Your task to perform on an android device: star an email in the gmail app Image 0: 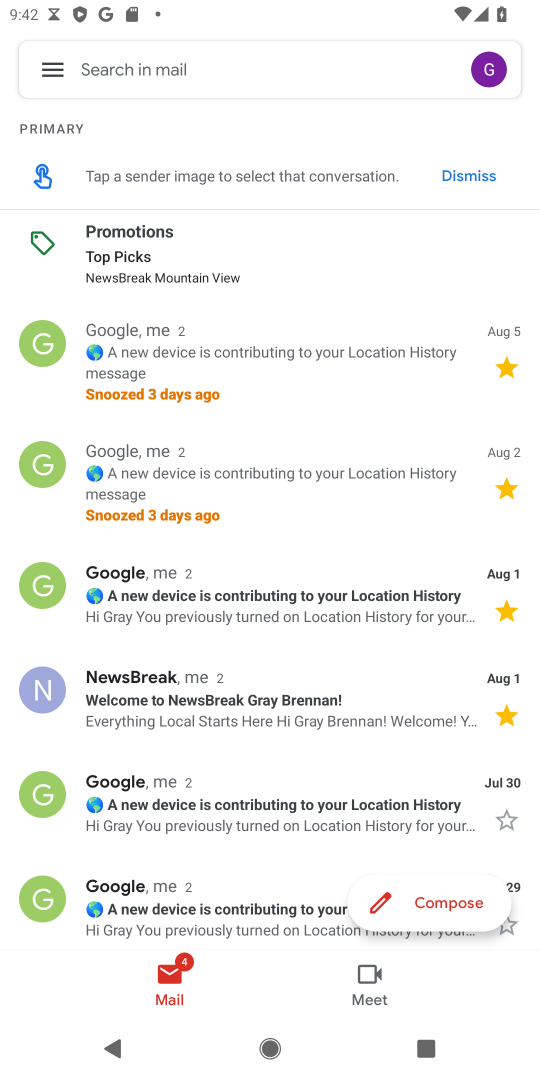
Step 0: drag from (248, 829) to (222, 612)
Your task to perform on an android device: star an email in the gmail app Image 1: 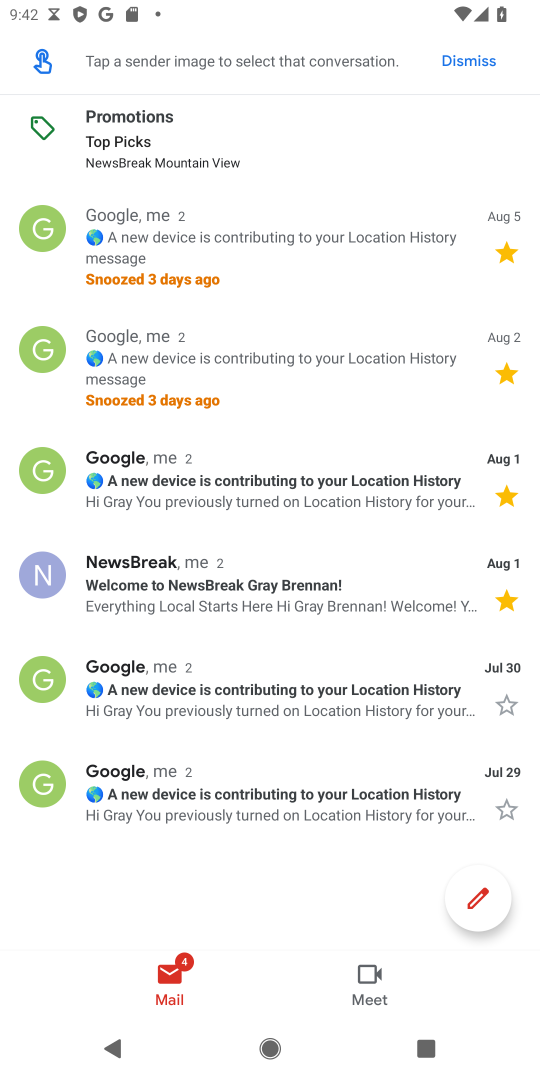
Step 1: click (507, 697)
Your task to perform on an android device: star an email in the gmail app Image 2: 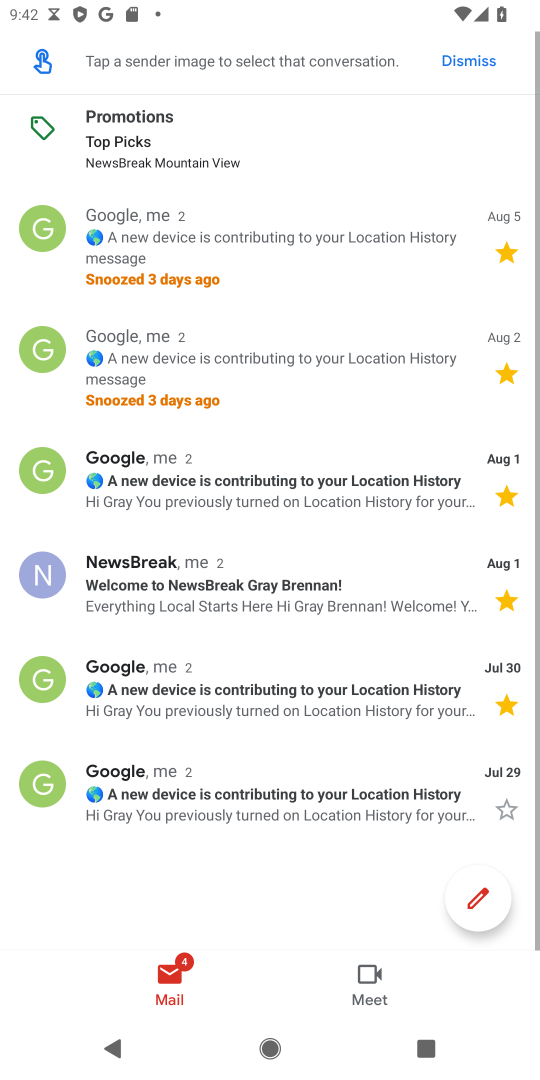
Step 2: task complete